Your task to perform on an android device: clear all cookies in the chrome app Image 0: 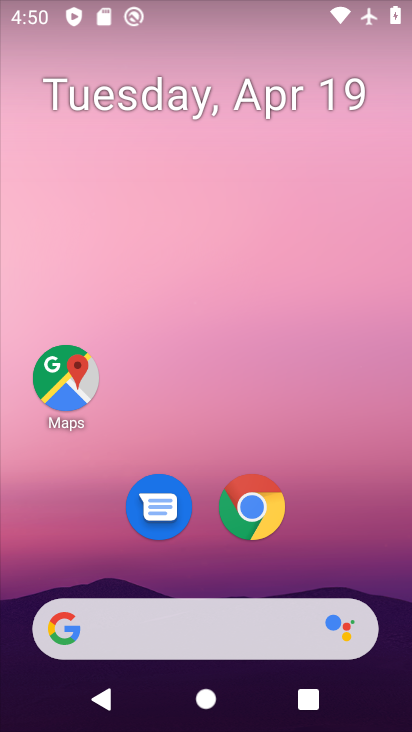
Step 0: click (254, 503)
Your task to perform on an android device: clear all cookies in the chrome app Image 1: 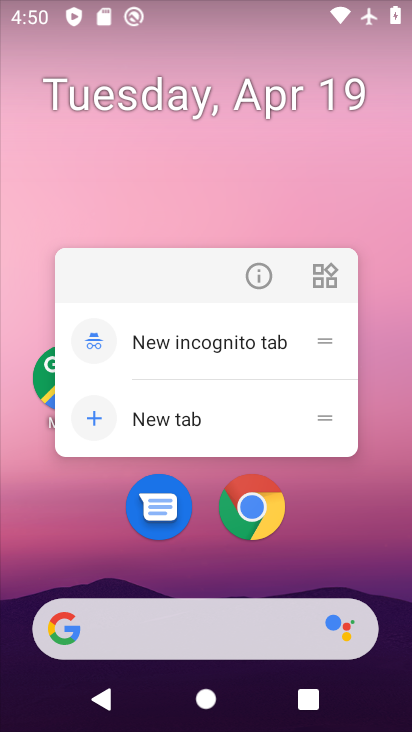
Step 1: drag from (363, 542) to (362, 2)
Your task to perform on an android device: clear all cookies in the chrome app Image 2: 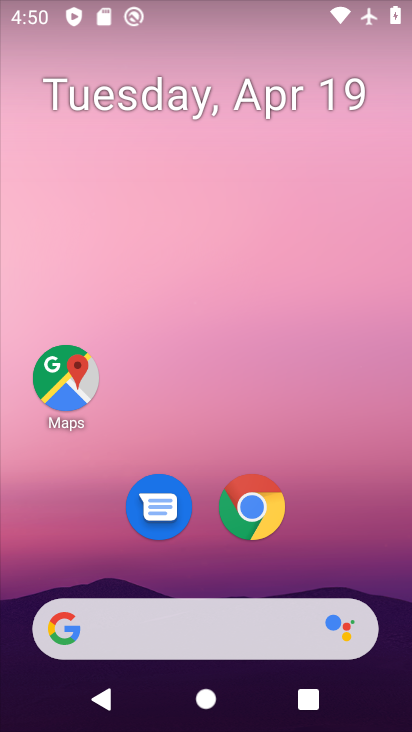
Step 2: drag from (383, 486) to (324, 46)
Your task to perform on an android device: clear all cookies in the chrome app Image 3: 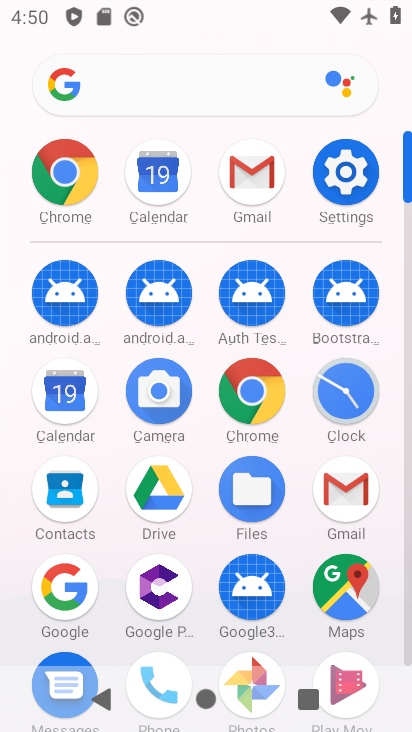
Step 3: click (244, 399)
Your task to perform on an android device: clear all cookies in the chrome app Image 4: 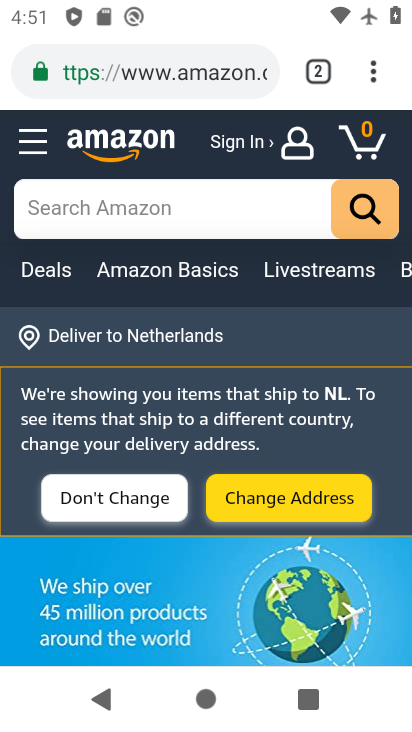
Step 4: drag from (376, 66) to (146, 498)
Your task to perform on an android device: clear all cookies in the chrome app Image 5: 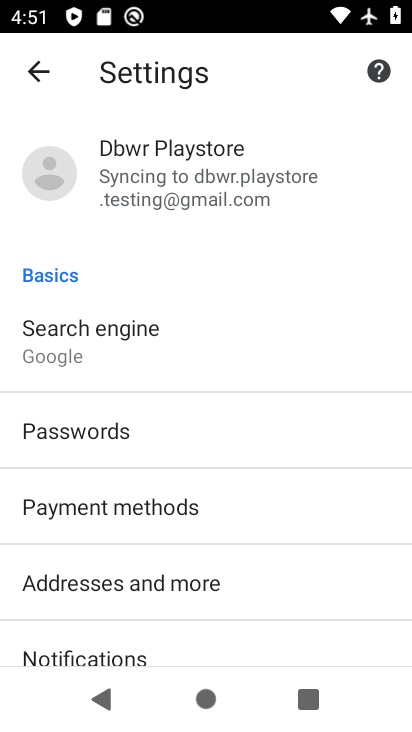
Step 5: drag from (285, 619) to (314, 229)
Your task to perform on an android device: clear all cookies in the chrome app Image 6: 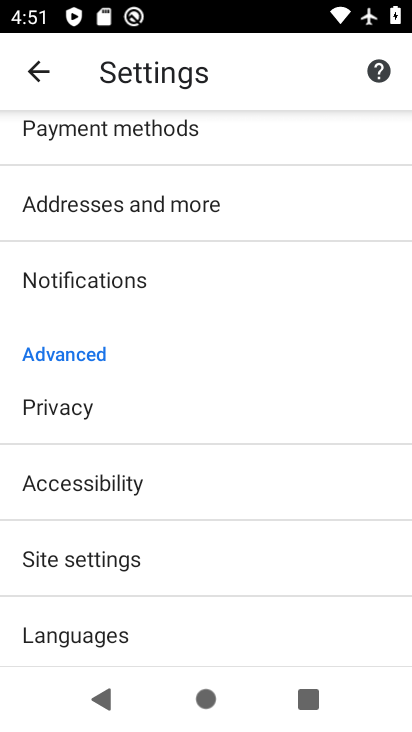
Step 6: click (39, 71)
Your task to perform on an android device: clear all cookies in the chrome app Image 7: 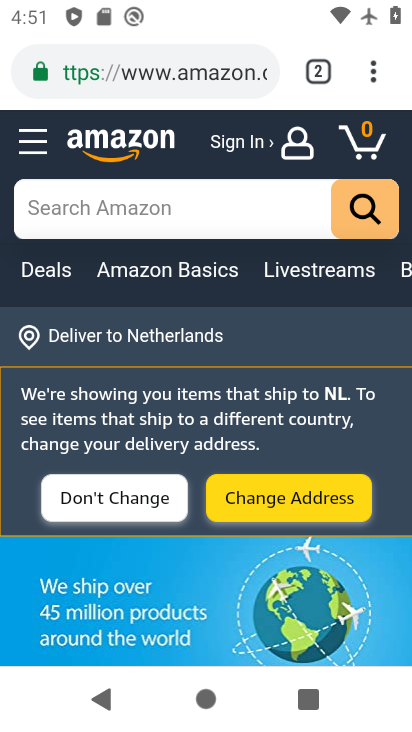
Step 7: drag from (376, 63) to (163, 399)
Your task to perform on an android device: clear all cookies in the chrome app Image 8: 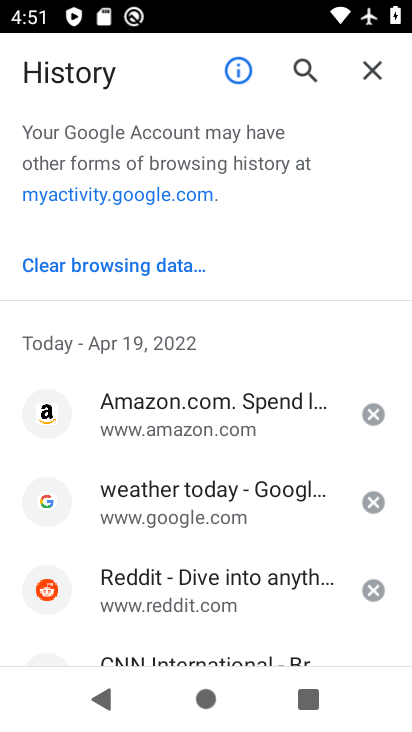
Step 8: click (148, 266)
Your task to perform on an android device: clear all cookies in the chrome app Image 9: 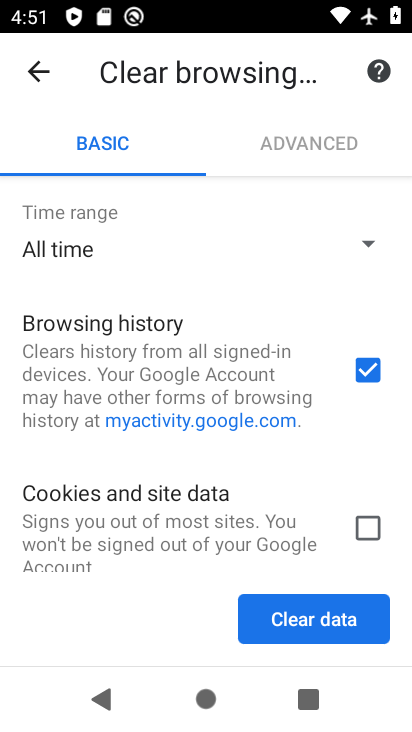
Step 9: click (316, 621)
Your task to perform on an android device: clear all cookies in the chrome app Image 10: 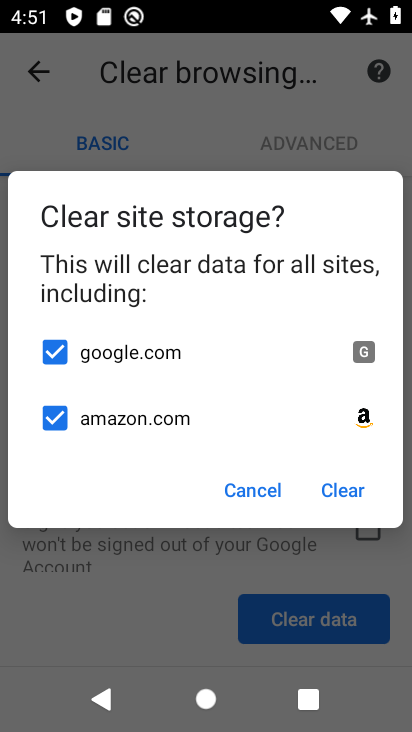
Step 10: click (255, 496)
Your task to perform on an android device: clear all cookies in the chrome app Image 11: 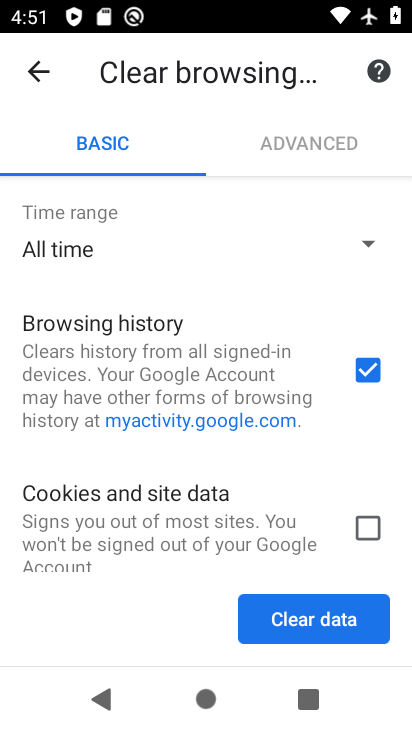
Step 11: click (353, 525)
Your task to perform on an android device: clear all cookies in the chrome app Image 12: 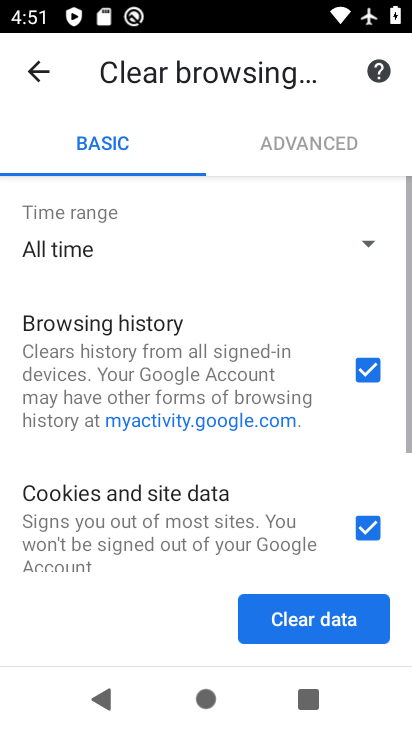
Step 12: click (304, 636)
Your task to perform on an android device: clear all cookies in the chrome app Image 13: 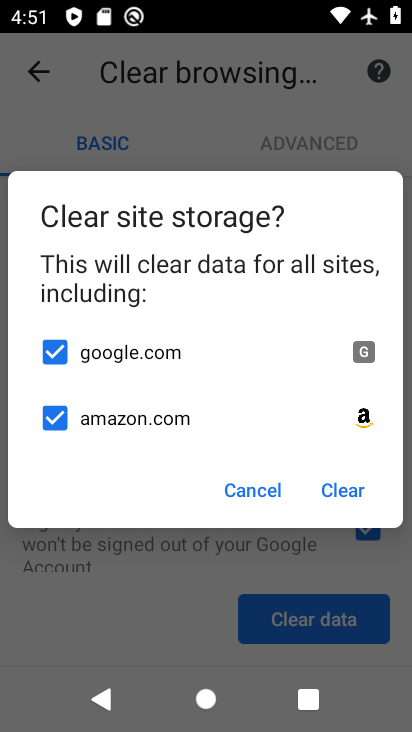
Step 13: click (351, 482)
Your task to perform on an android device: clear all cookies in the chrome app Image 14: 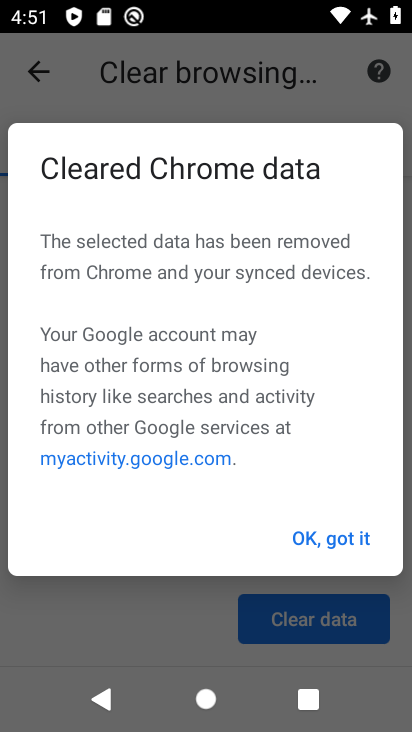
Step 14: click (344, 537)
Your task to perform on an android device: clear all cookies in the chrome app Image 15: 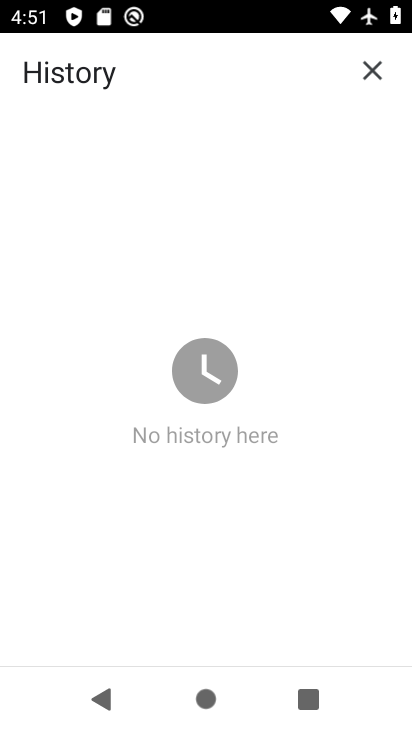
Step 15: task complete